Your task to perform on an android device: Open my contact list Image 0: 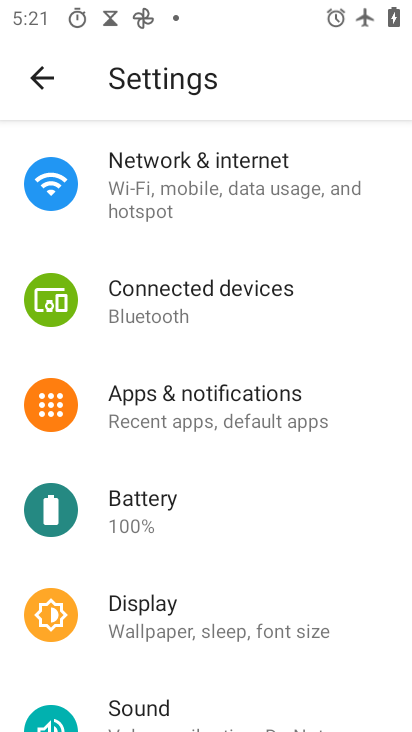
Step 0: press home button
Your task to perform on an android device: Open my contact list Image 1: 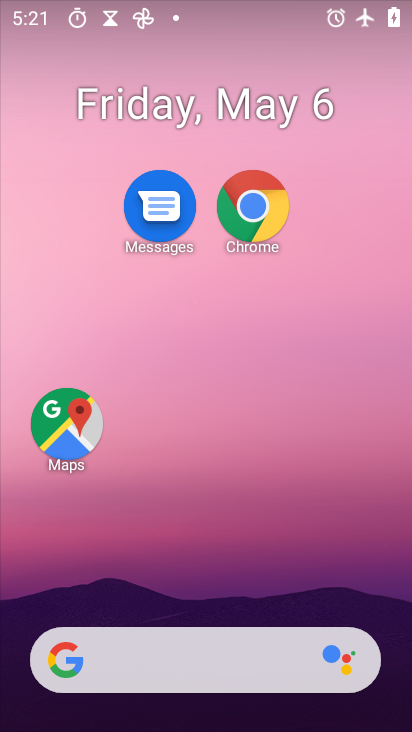
Step 1: drag from (197, 630) to (188, 264)
Your task to perform on an android device: Open my contact list Image 2: 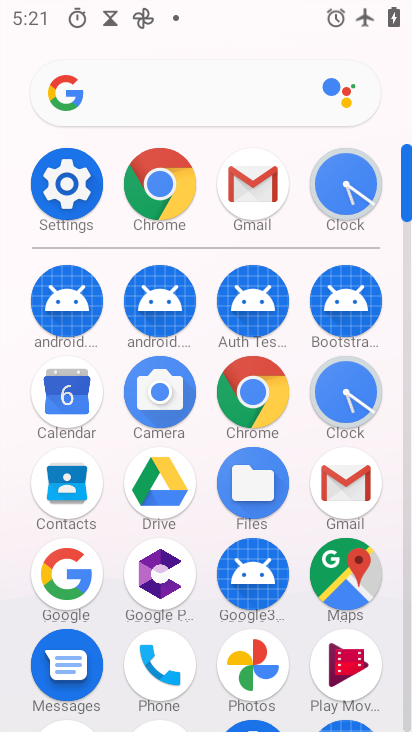
Step 2: click (53, 489)
Your task to perform on an android device: Open my contact list Image 3: 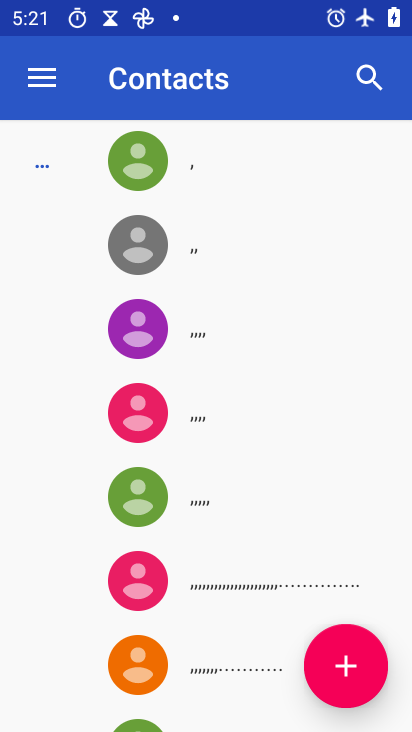
Step 3: task complete